Your task to perform on an android device: turn on improve location accuracy Image 0: 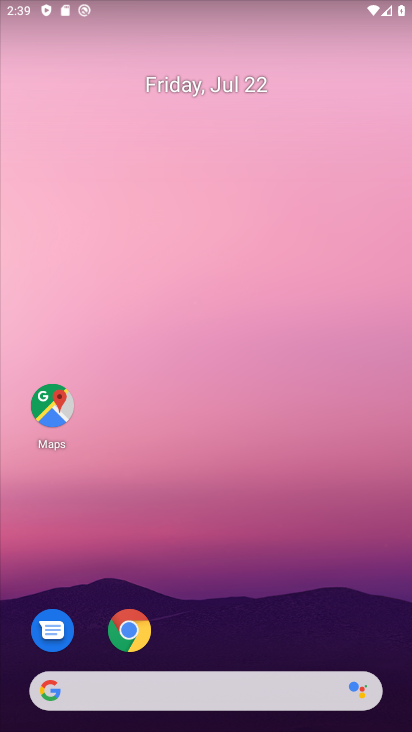
Step 0: drag from (248, 710) to (295, 118)
Your task to perform on an android device: turn on improve location accuracy Image 1: 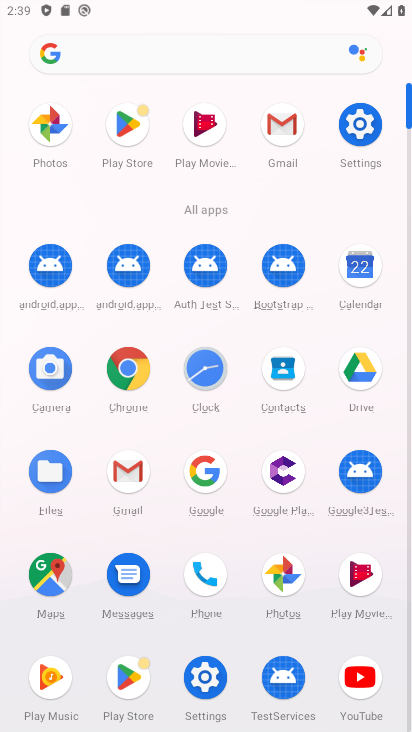
Step 1: click (361, 125)
Your task to perform on an android device: turn on improve location accuracy Image 2: 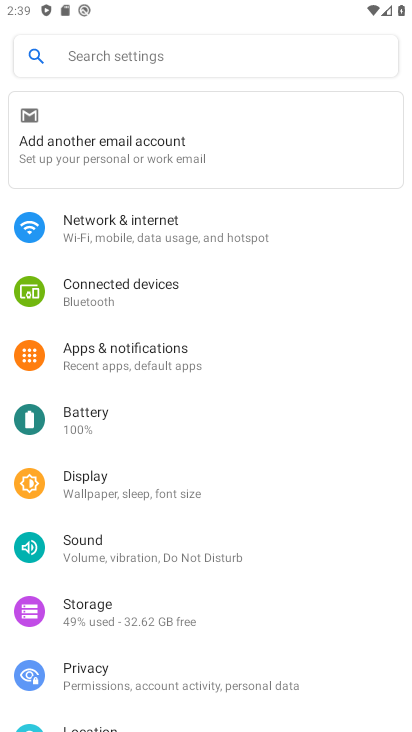
Step 2: click (90, 724)
Your task to perform on an android device: turn on improve location accuracy Image 3: 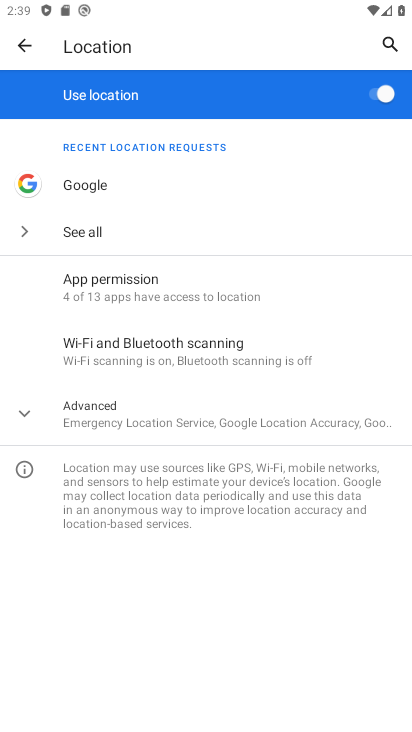
Step 3: click (31, 409)
Your task to perform on an android device: turn on improve location accuracy Image 4: 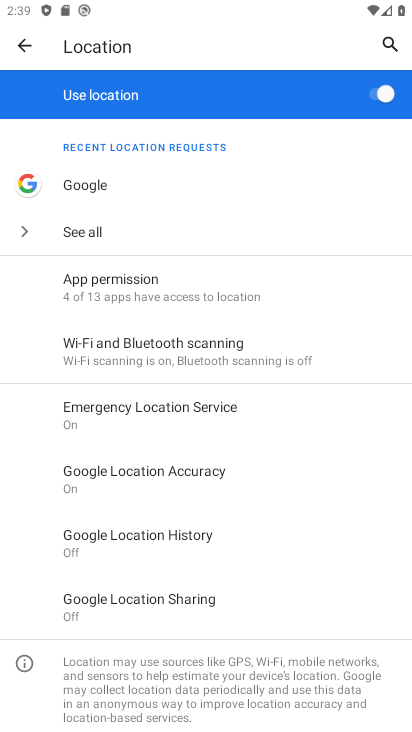
Step 4: click (139, 464)
Your task to perform on an android device: turn on improve location accuracy Image 5: 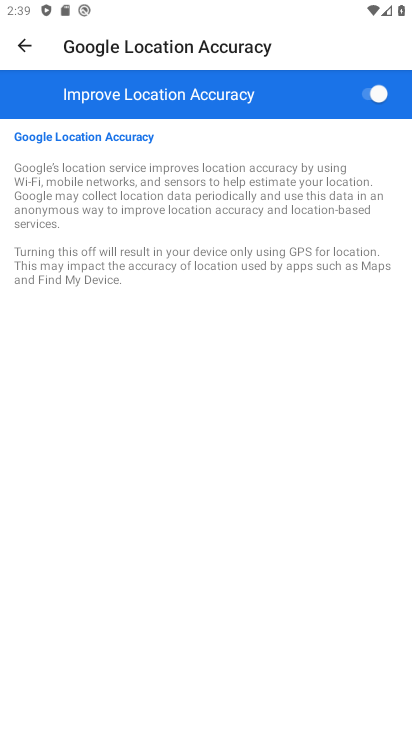
Step 5: click (367, 98)
Your task to perform on an android device: turn on improve location accuracy Image 6: 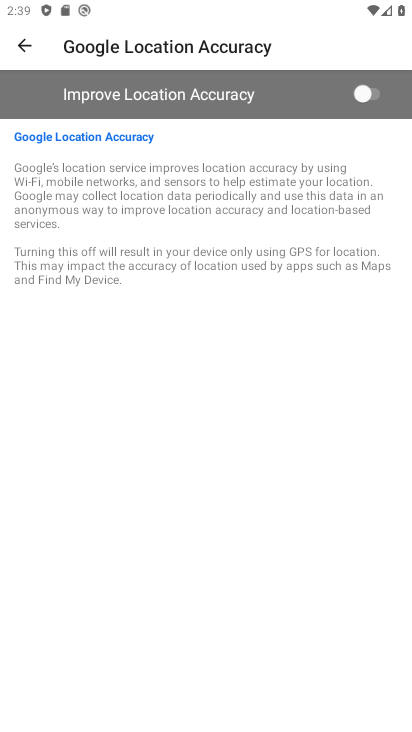
Step 6: click (371, 87)
Your task to perform on an android device: turn on improve location accuracy Image 7: 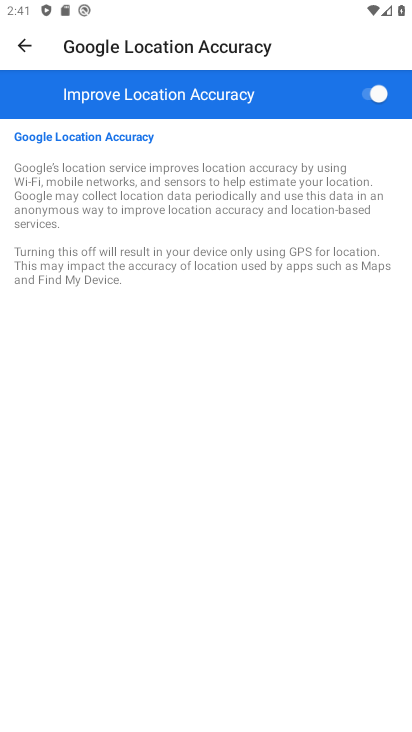
Step 7: task complete